Your task to perform on an android device: change your default location settings in chrome Image 0: 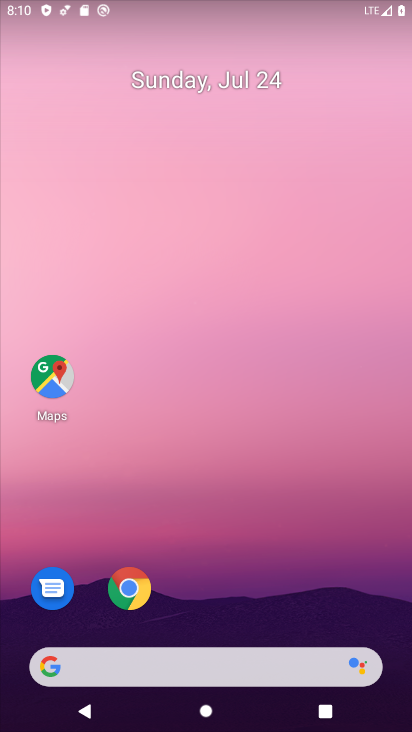
Step 0: click (129, 590)
Your task to perform on an android device: change your default location settings in chrome Image 1: 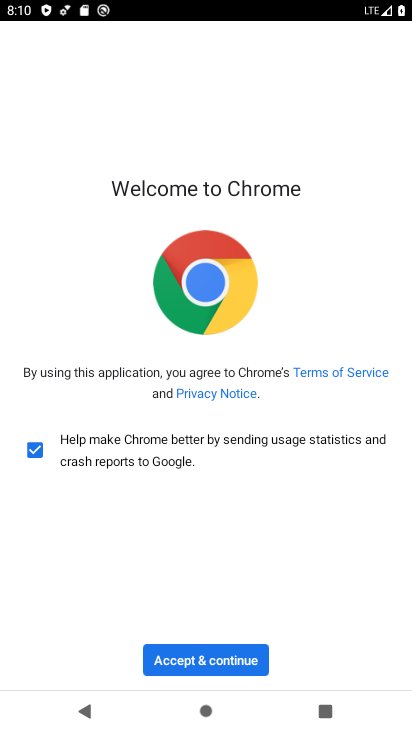
Step 1: click (195, 657)
Your task to perform on an android device: change your default location settings in chrome Image 2: 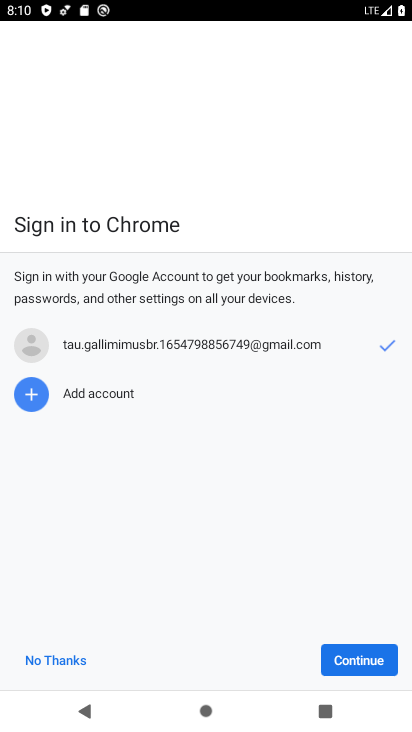
Step 2: click (369, 665)
Your task to perform on an android device: change your default location settings in chrome Image 3: 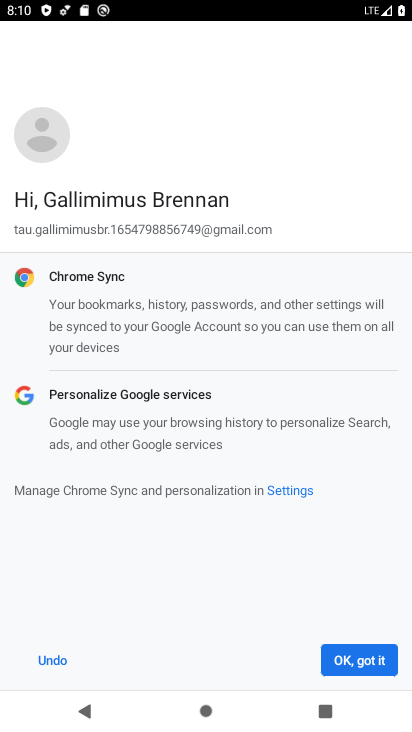
Step 3: click (369, 665)
Your task to perform on an android device: change your default location settings in chrome Image 4: 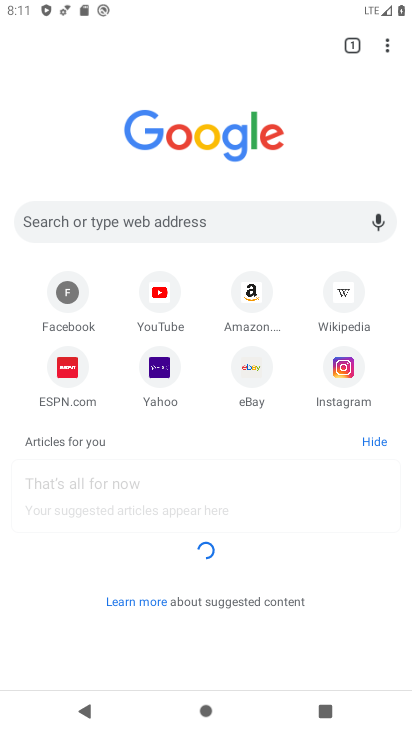
Step 4: click (385, 52)
Your task to perform on an android device: change your default location settings in chrome Image 5: 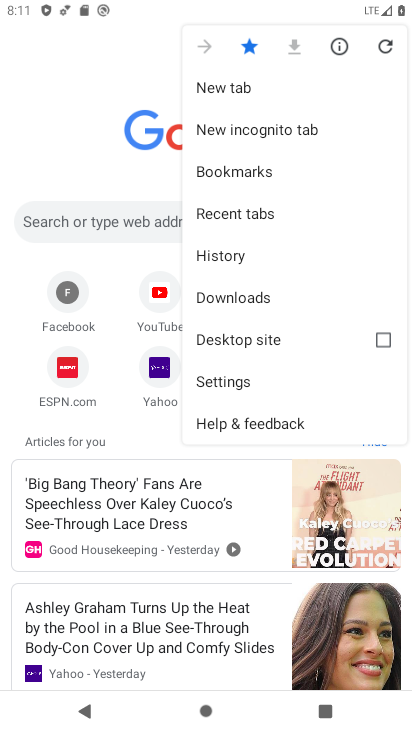
Step 5: click (238, 381)
Your task to perform on an android device: change your default location settings in chrome Image 6: 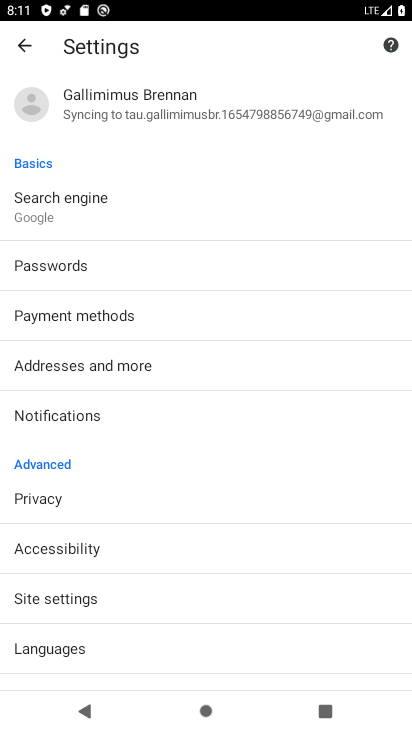
Step 6: click (59, 600)
Your task to perform on an android device: change your default location settings in chrome Image 7: 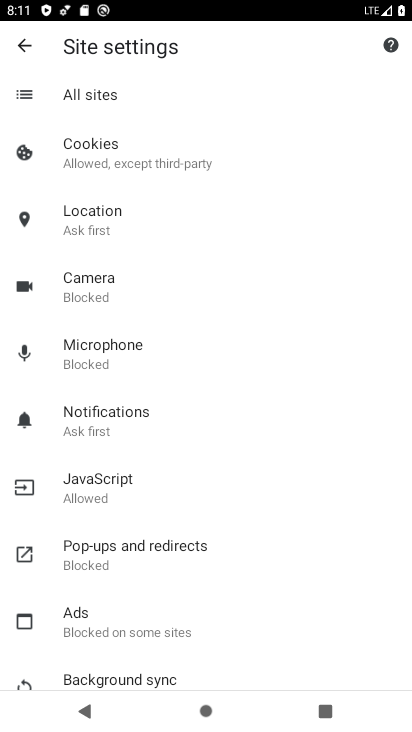
Step 7: click (85, 207)
Your task to perform on an android device: change your default location settings in chrome Image 8: 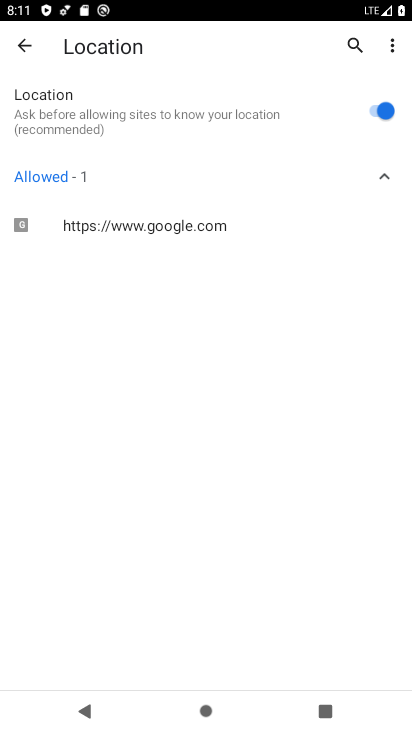
Step 8: click (373, 113)
Your task to perform on an android device: change your default location settings in chrome Image 9: 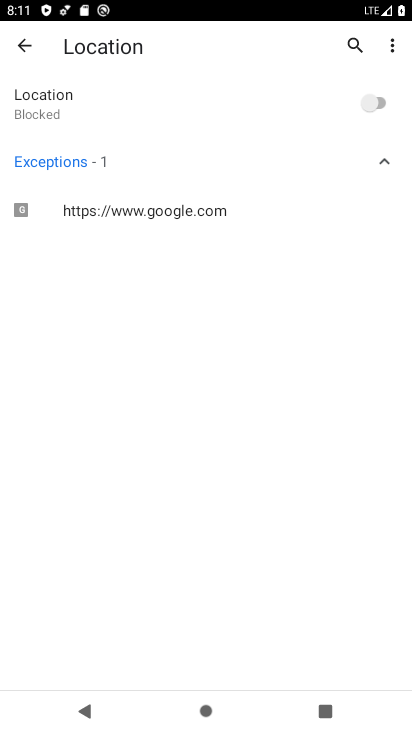
Step 9: task complete